Your task to perform on an android device: Search for acer predator on newegg, select the first entry, and add it to the cart. Image 0: 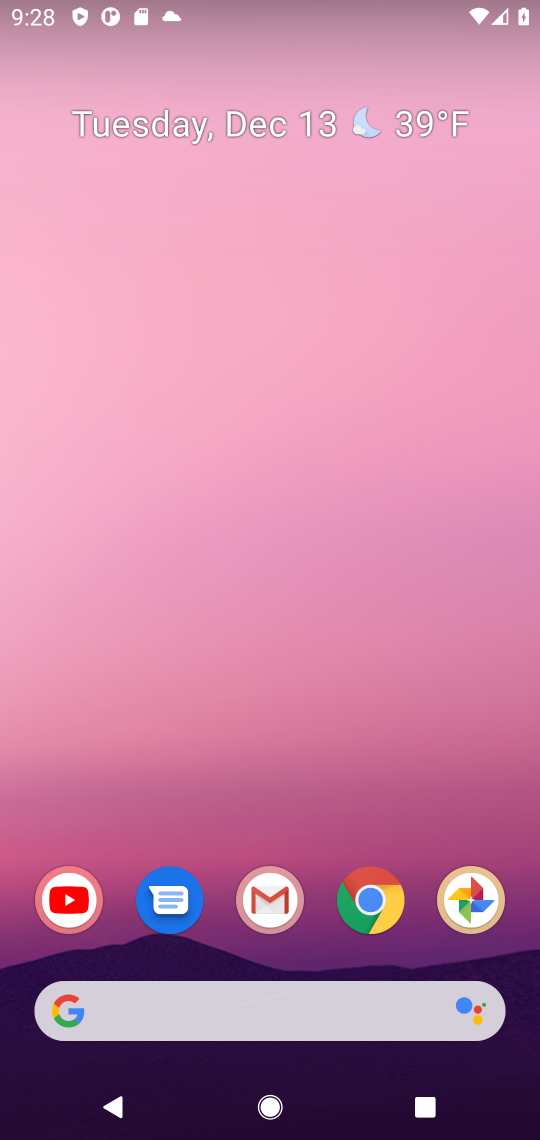
Step 0: task complete